Your task to perform on an android device: make emails show in primary in the gmail app Image 0: 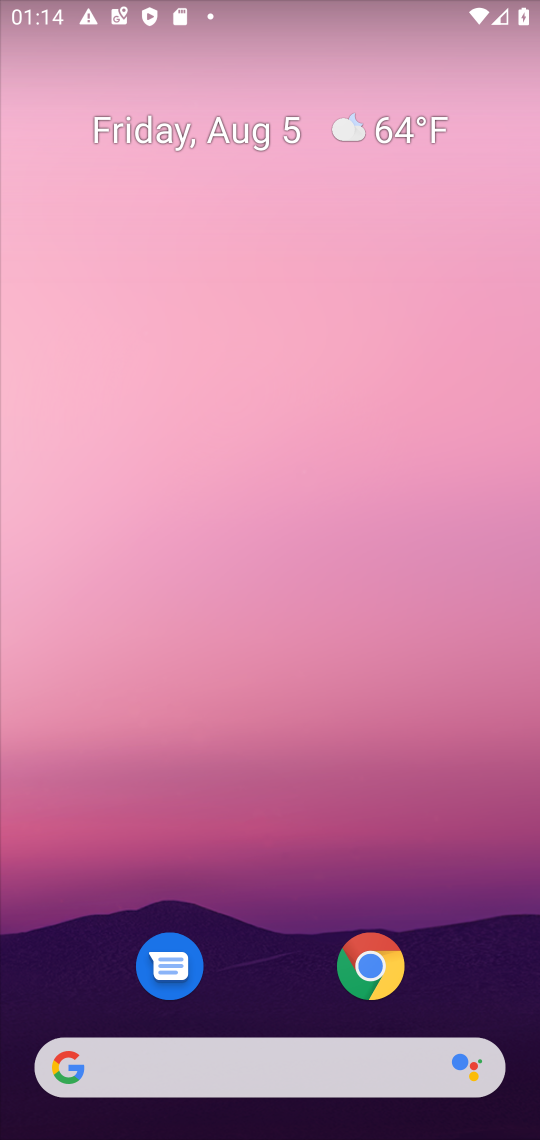
Step 0: drag from (364, 675) to (323, 49)
Your task to perform on an android device: make emails show in primary in the gmail app Image 1: 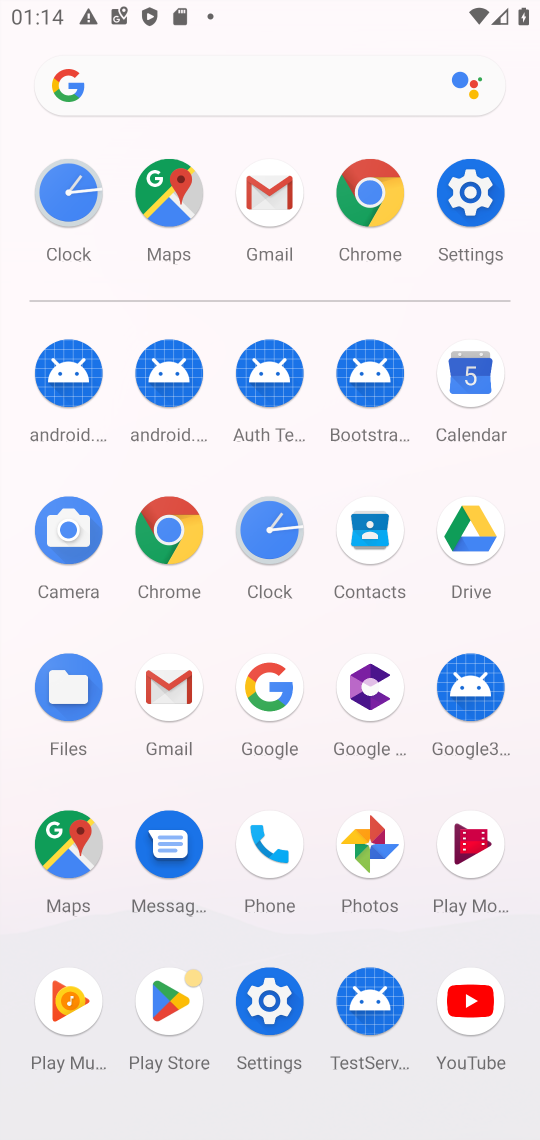
Step 1: click (278, 190)
Your task to perform on an android device: make emails show in primary in the gmail app Image 2: 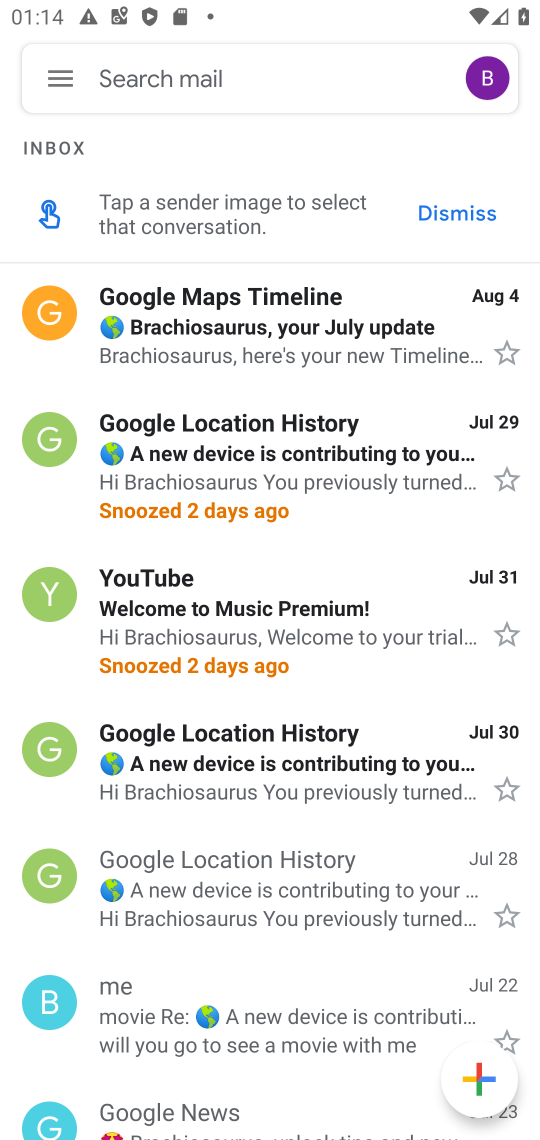
Step 2: click (60, 78)
Your task to perform on an android device: make emails show in primary in the gmail app Image 3: 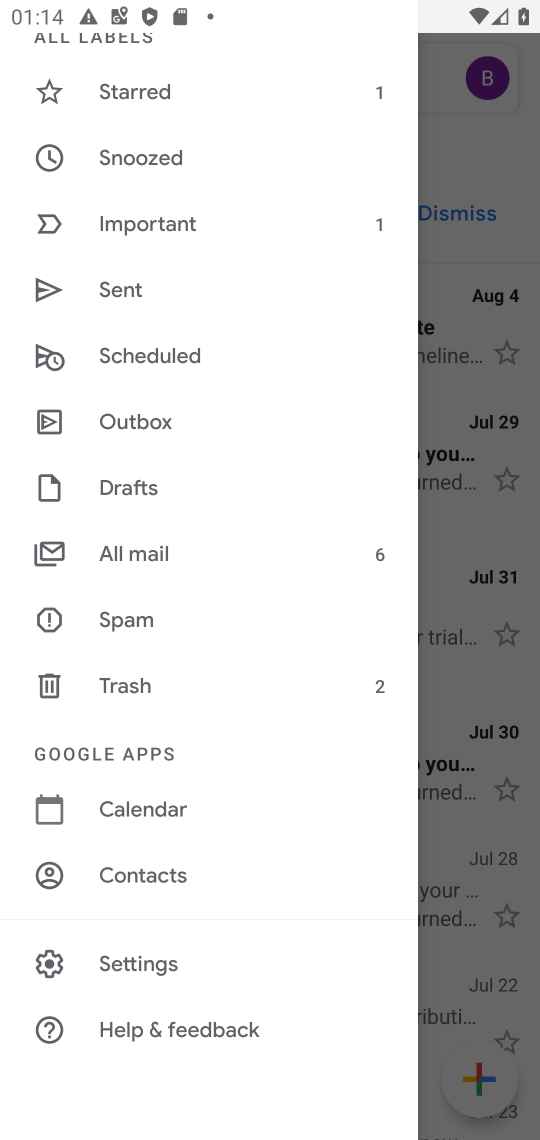
Step 3: click (156, 957)
Your task to perform on an android device: make emails show in primary in the gmail app Image 4: 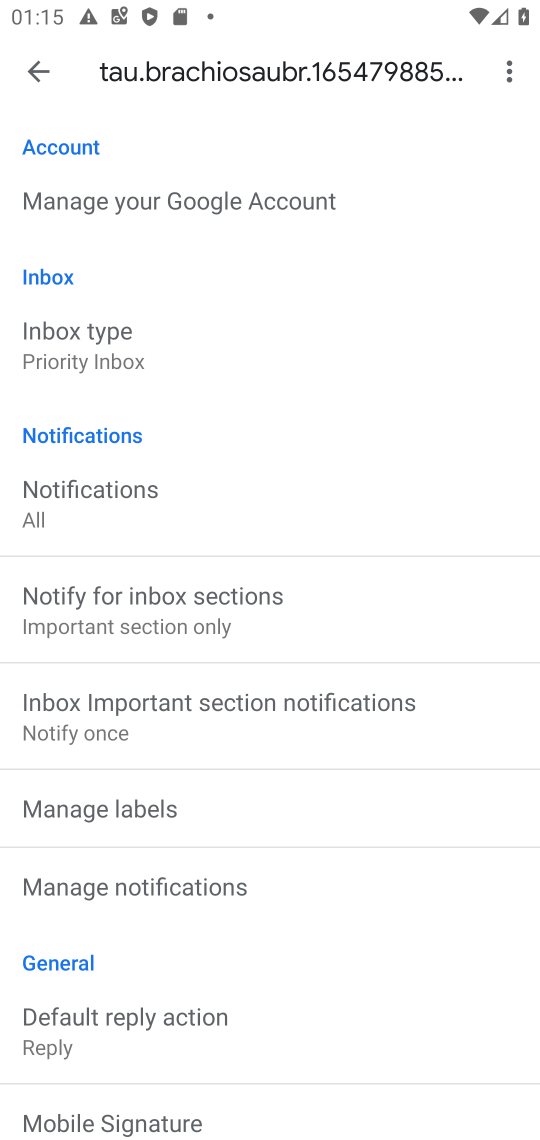
Step 4: click (116, 336)
Your task to perform on an android device: make emails show in primary in the gmail app Image 5: 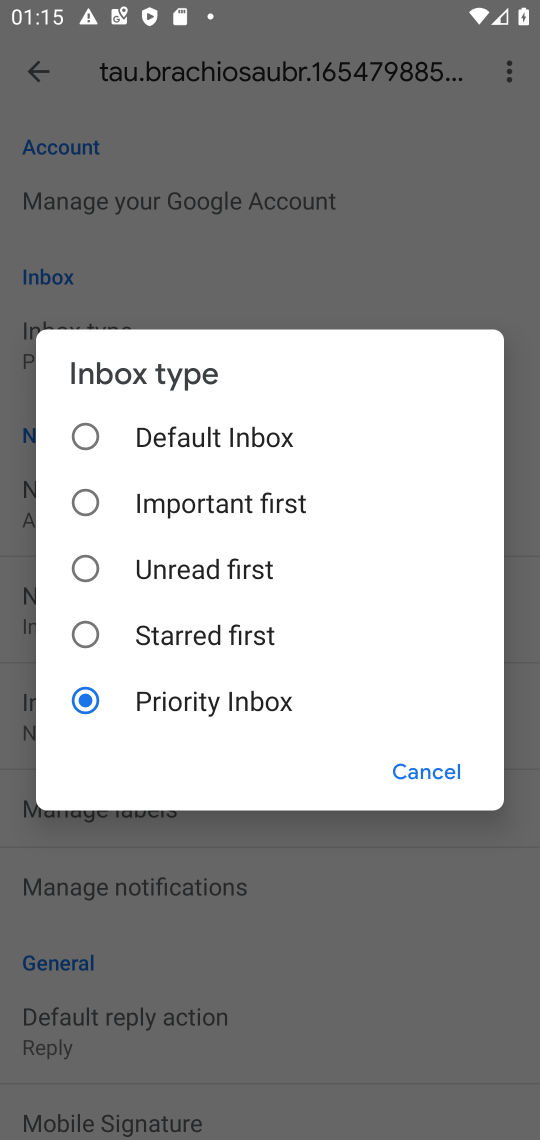
Step 5: click (76, 427)
Your task to perform on an android device: make emails show in primary in the gmail app Image 6: 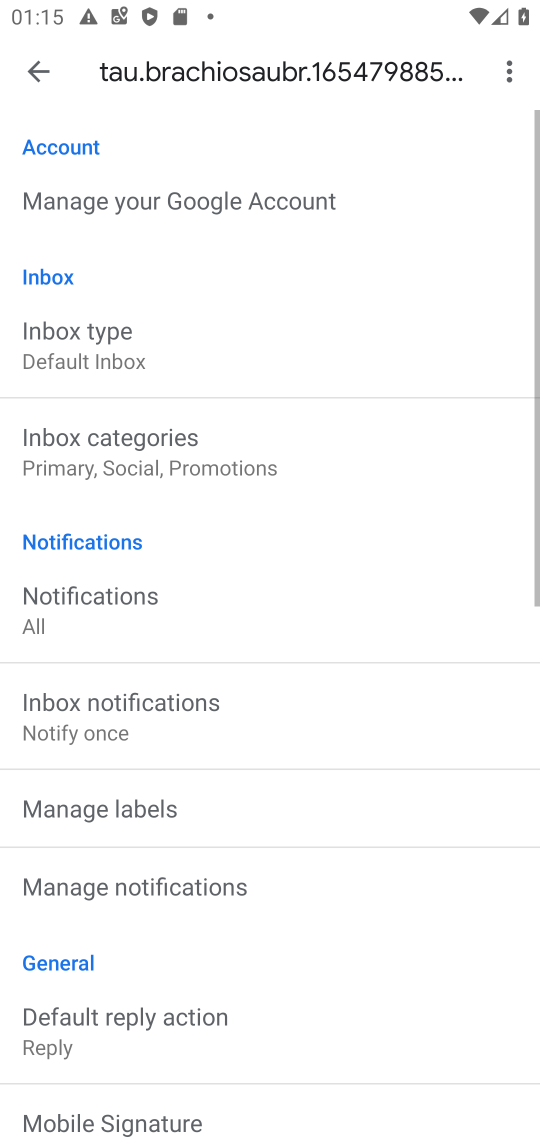
Step 6: click (76, 422)
Your task to perform on an android device: make emails show in primary in the gmail app Image 7: 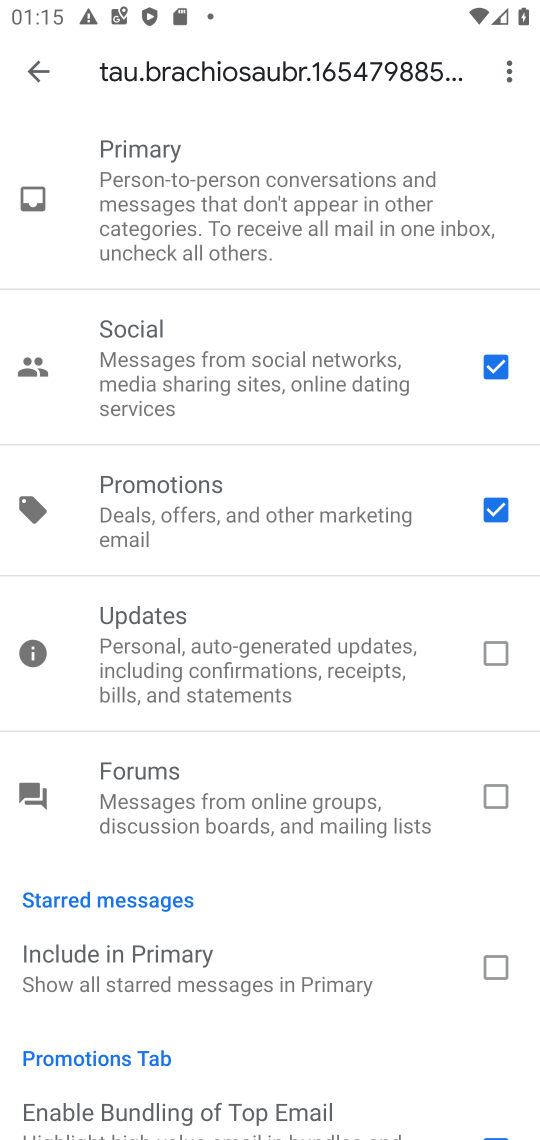
Step 7: click (493, 500)
Your task to perform on an android device: make emails show in primary in the gmail app Image 8: 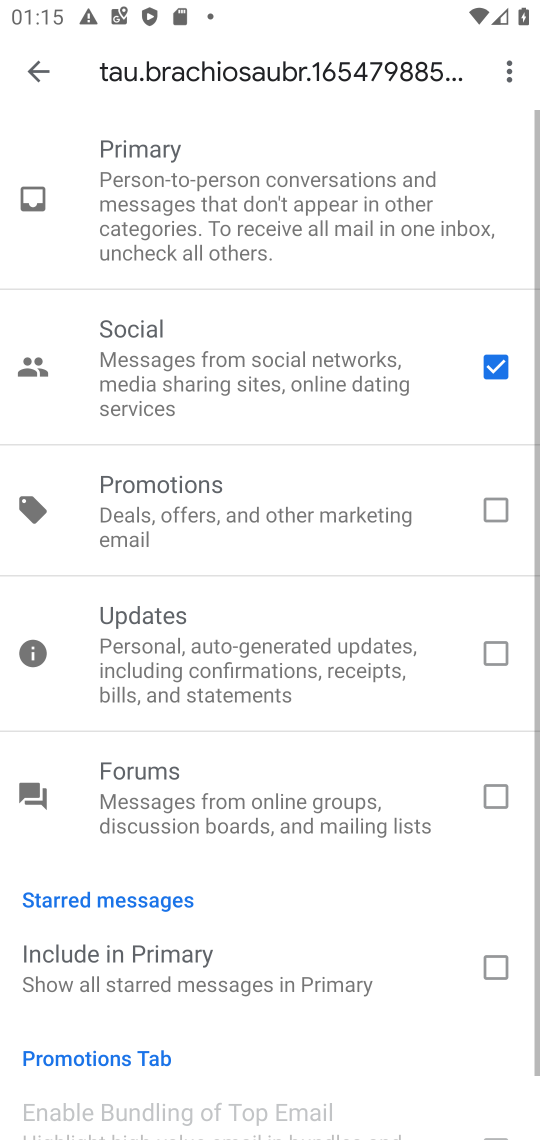
Step 8: click (493, 369)
Your task to perform on an android device: make emails show in primary in the gmail app Image 9: 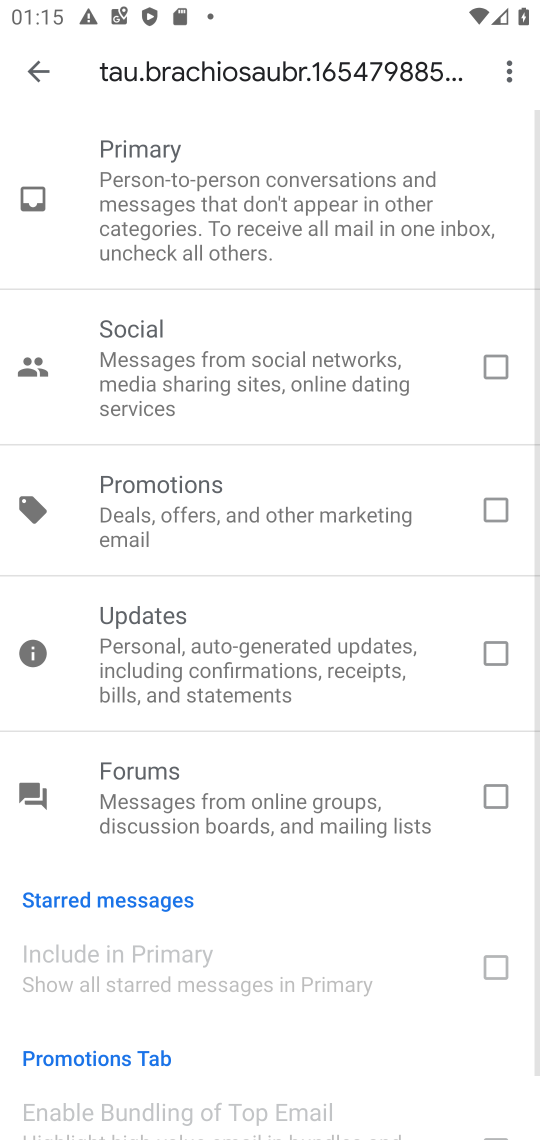
Step 9: click (35, 70)
Your task to perform on an android device: make emails show in primary in the gmail app Image 10: 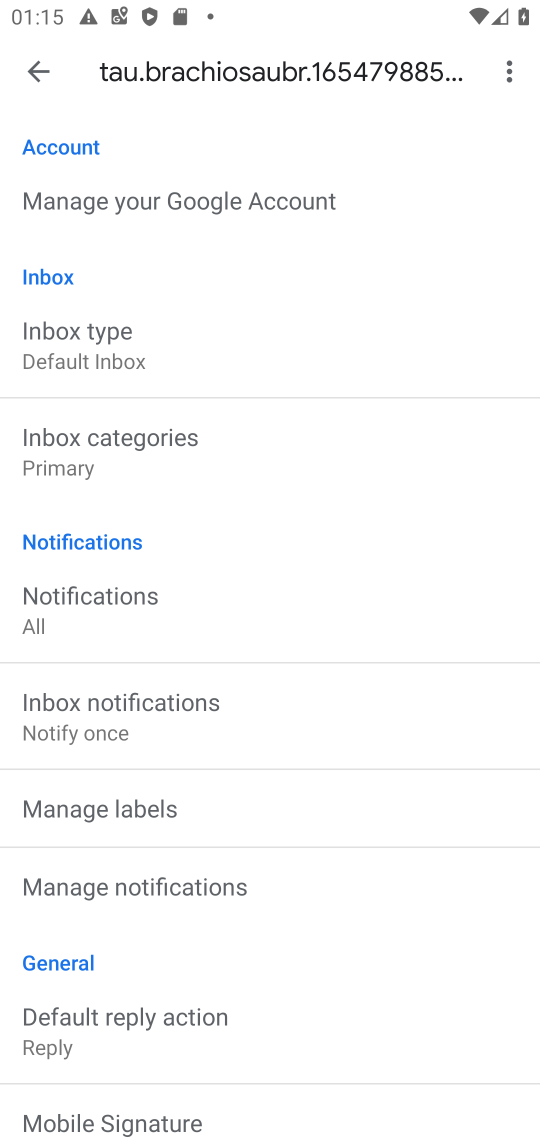
Step 10: task complete